Your task to perform on an android device: Go to accessibility settings Image 0: 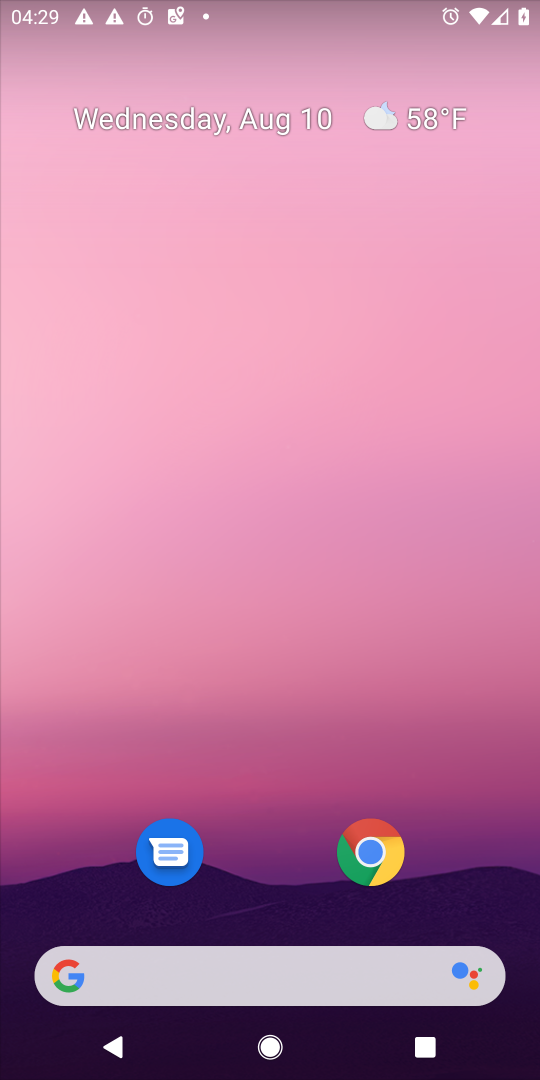
Step 0: drag from (285, 875) to (363, 156)
Your task to perform on an android device: Go to accessibility settings Image 1: 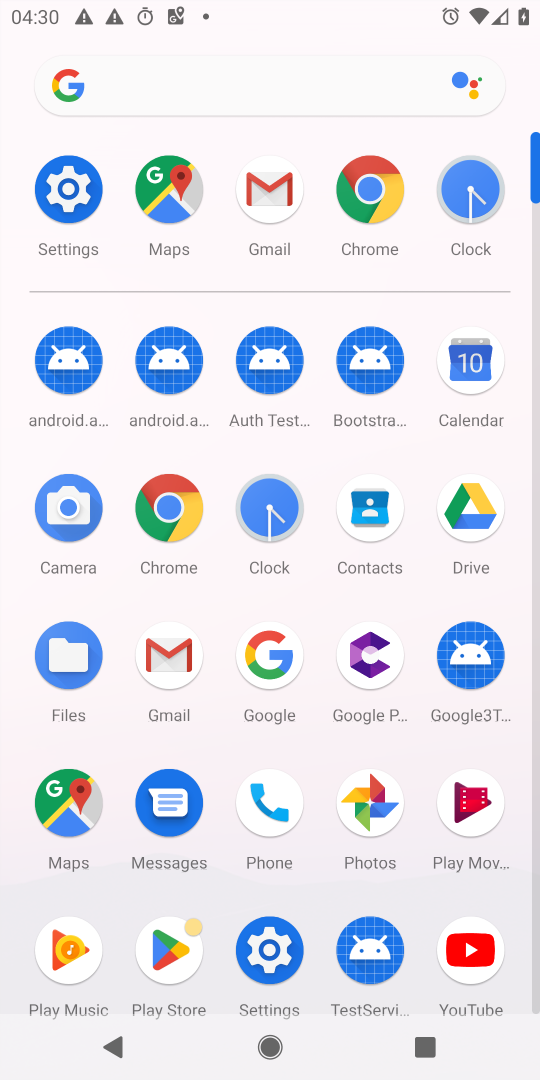
Step 1: click (263, 957)
Your task to perform on an android device: Go to accessibility settings Image 2: 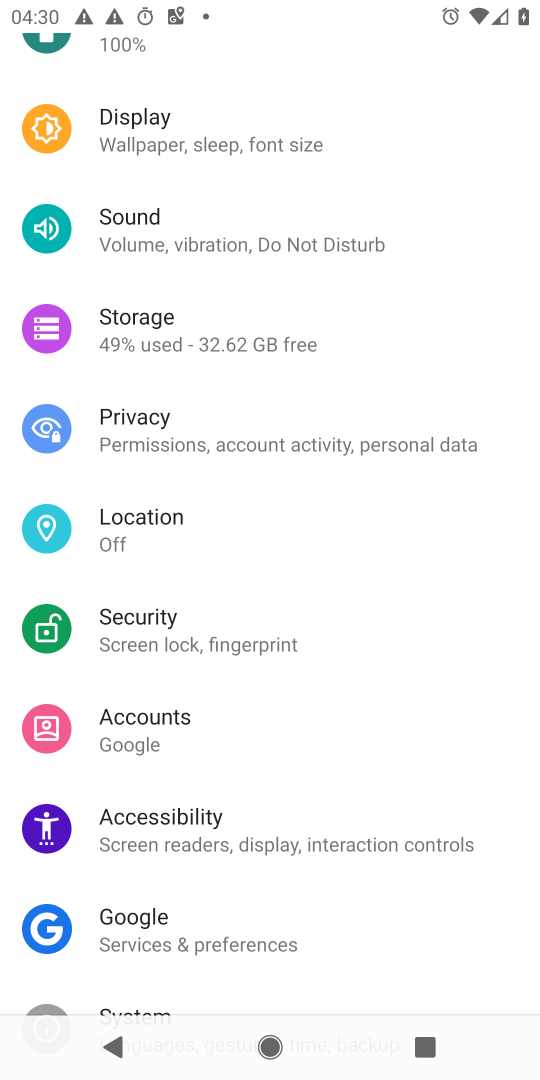
Step 2: click (201, 826)
Your task to perform on an android device: Go to accessibility settings Image 3: 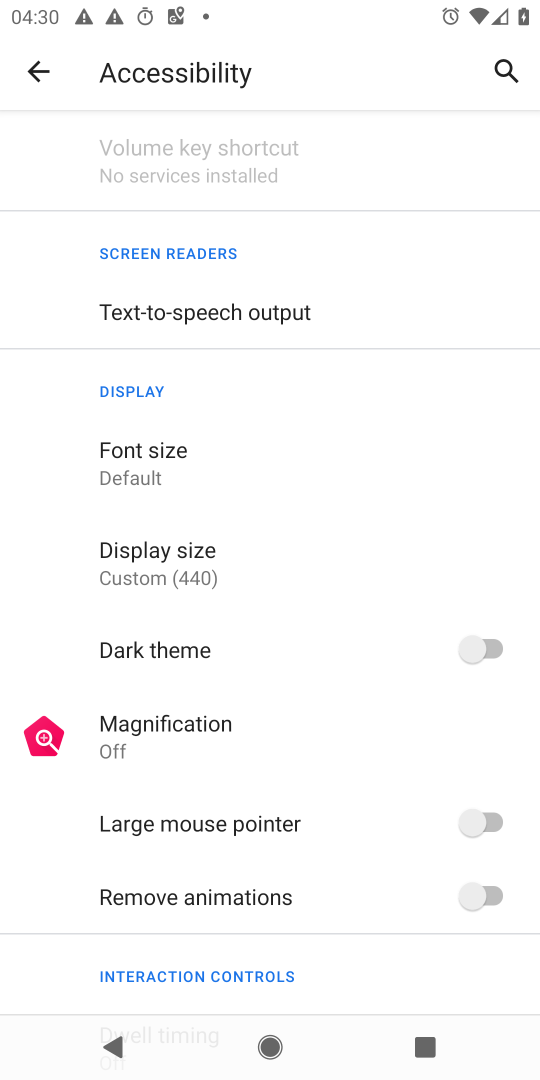
Step 3: task complete